Your task to perform on an android device: check out phone information Image 0: 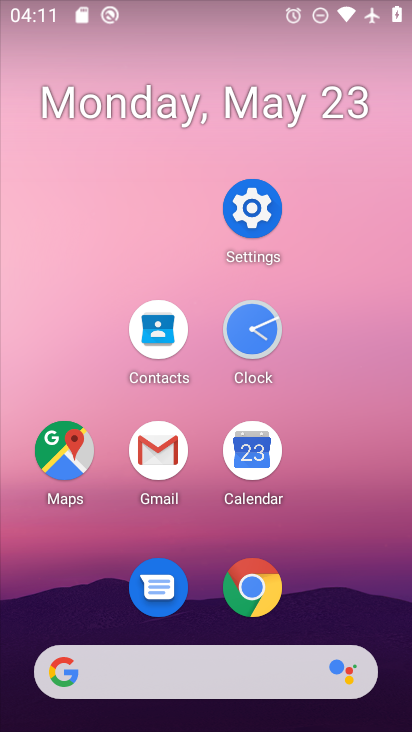
Step 0: click (267, 255)
Your task to perform on an android device: check out phone information Image 1: 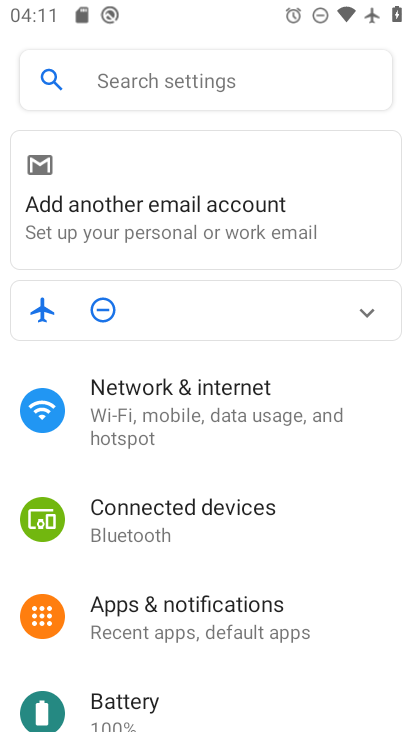
Step 1: drag from (215, 600) to (241, 351)
Your task to perform on an android device: check out phone information Image 2: 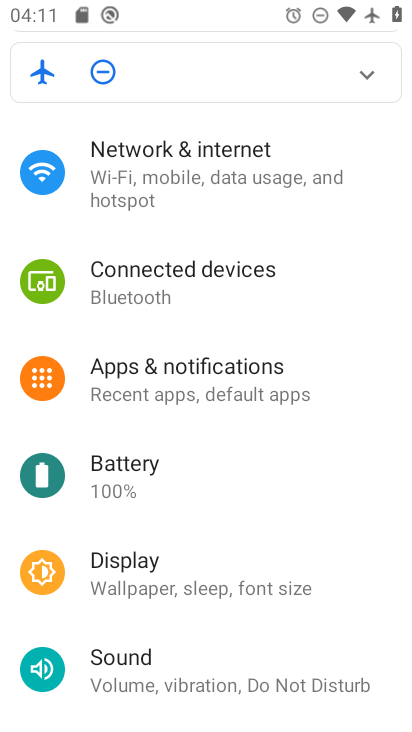
Step 2: drag from (218, 620) to (280, 158)
Your task to perform on an android device: check out phone information Image 3: 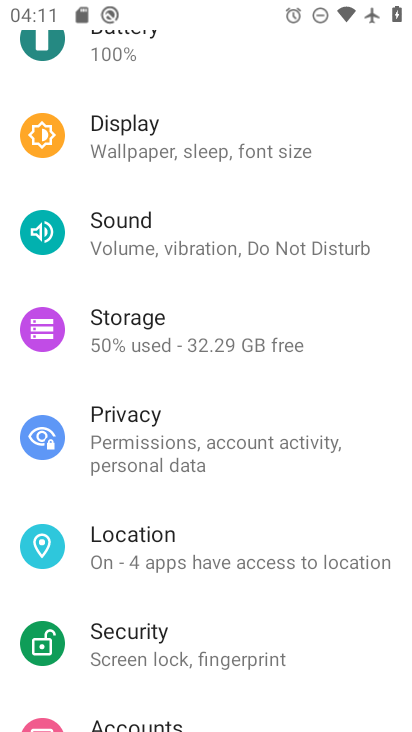
Step 3: drag from (277, 651) to (272, 265)
Your task to perform on an android device: check out phone information Image 4: 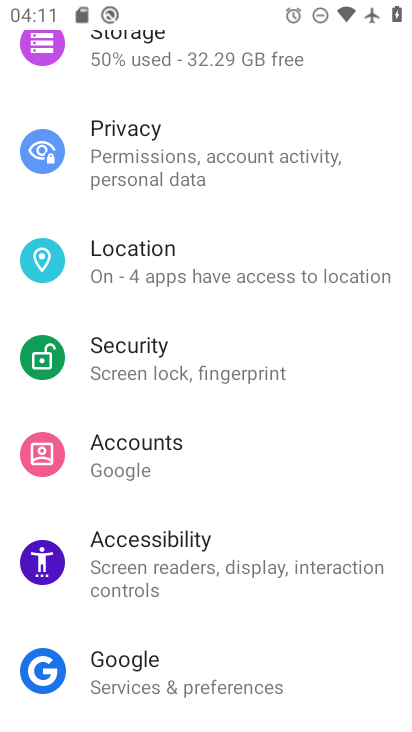
Step 4: drag from (234, 663) to (286, 367)
Your task to perform on an android device: check out phone information Image 5: 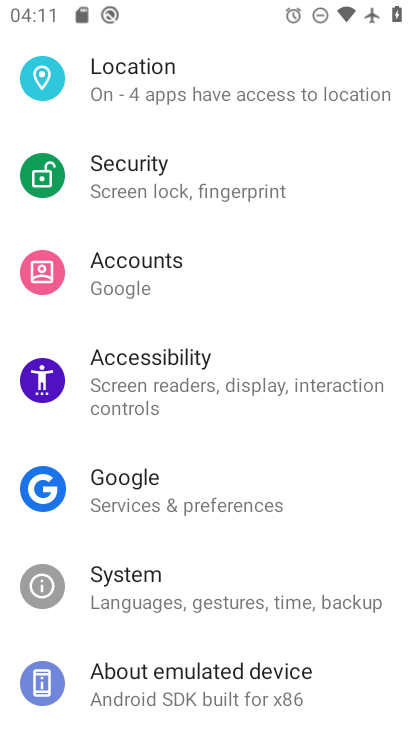
Step 5: click (289, 590)
Your task to perform on an android device: check out phone information Image 6: 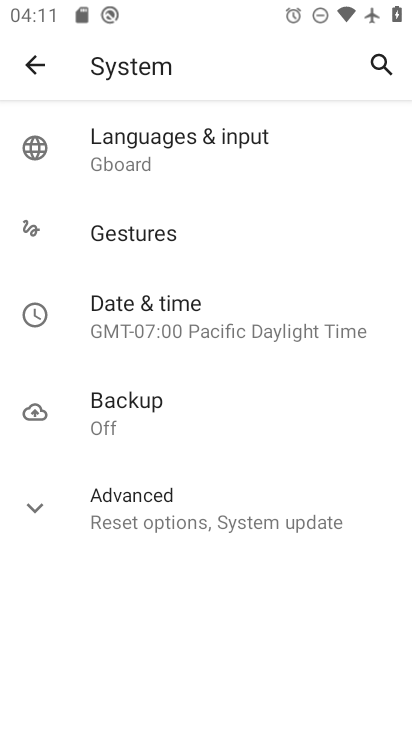
Step 6: task complete